Your task to perform on an android device: change the clock style Image 0: 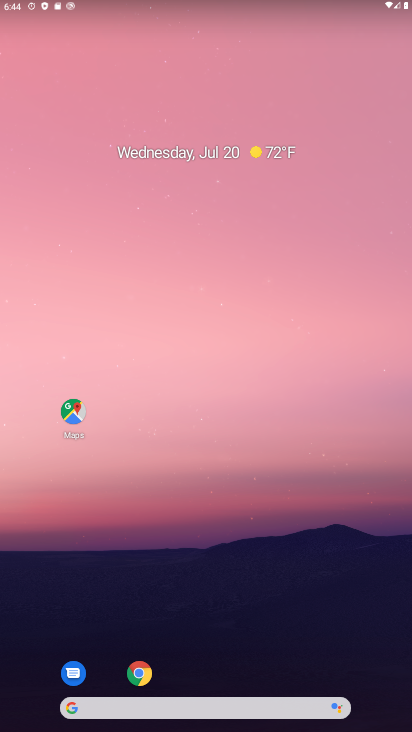
Step 0: drag from (360, 632) to (137, 54)
Your task to perform on an android device: change the clock style Image 1: 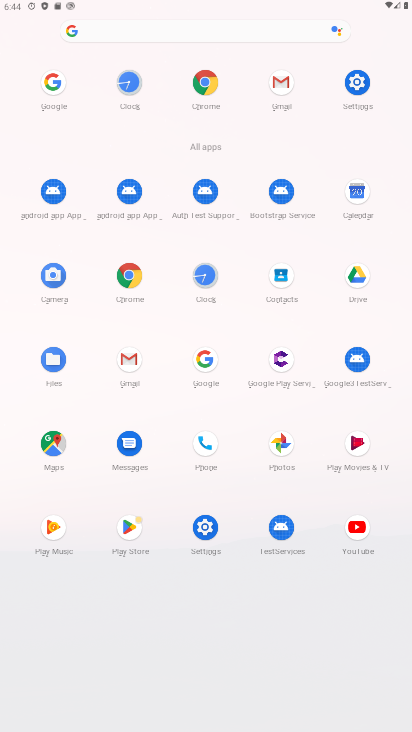
Step 1: click (201, 276)
Your task to perform on an android device: change the clock style Image 2: 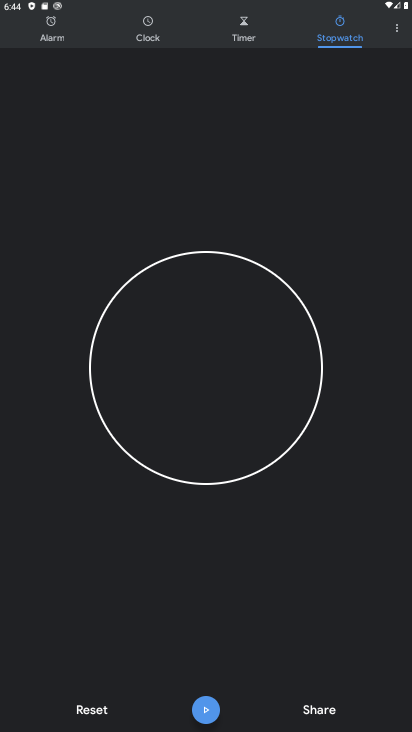
Step 2: click (392, 25)
Your task to perform on an android device: change the clock style Image 3: 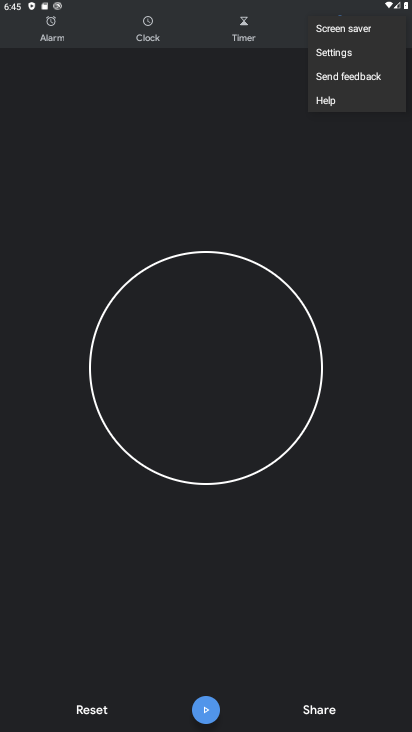
Step 3: click (351, 51)
Your task to perform on an android device: change the clock style Image 4: 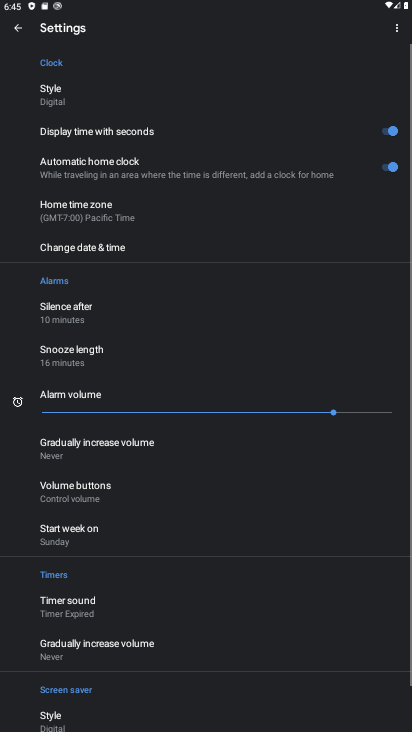
Step 4: click (67, 94)
Your task to perform on an android device: change the clock style Image 5: 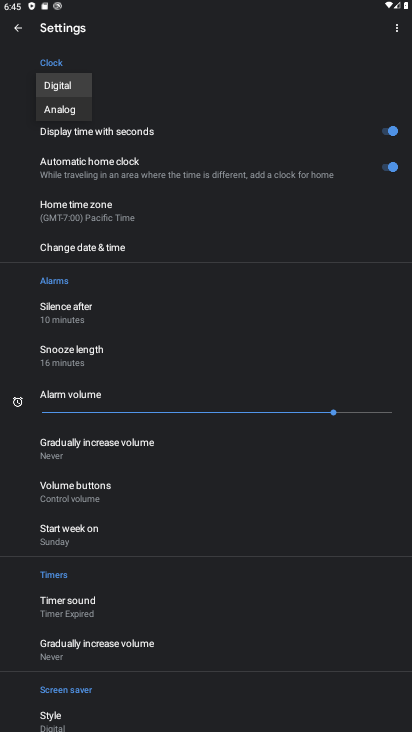
Step 5: click (71, 111)
Your task to perform on an android device: change the clock style Image 6: 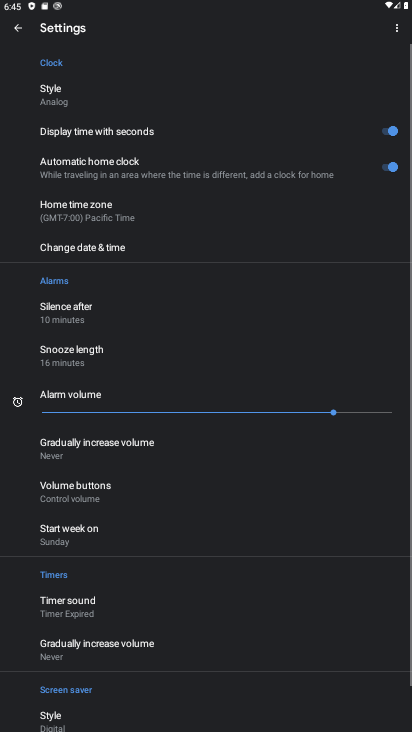
Step 6: task complete